Your task to perform on an android device: find which apps use the phone's location Image 0: 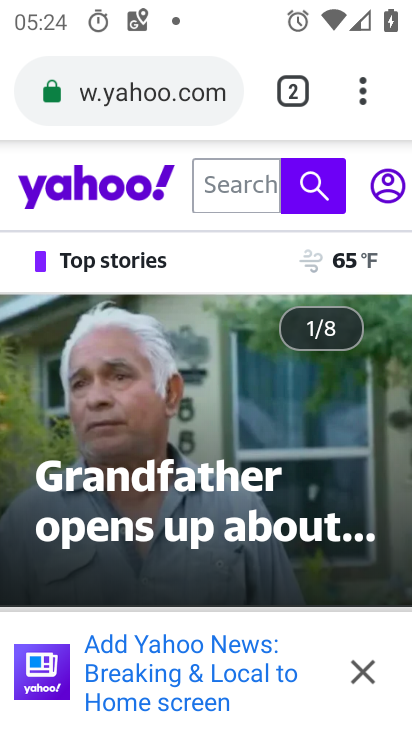
Step 0: press home button
Your task to perform on an android device: find which apps use the phone's location Image 1: 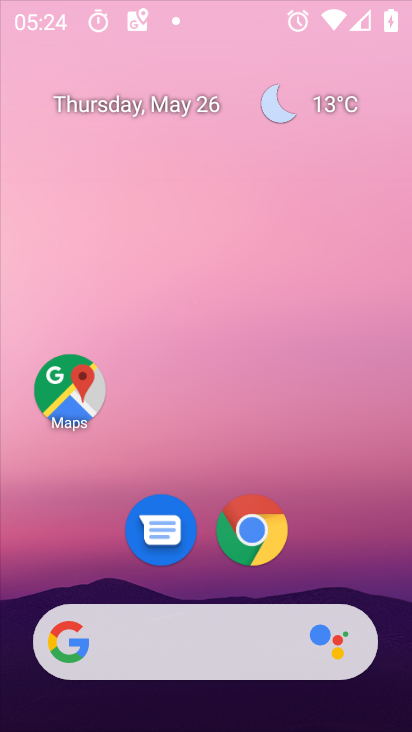
Step 1: drag from (329, 666) to (279, 0)
Your task to perform on an android device: find which apps use the phone's location Image 2: 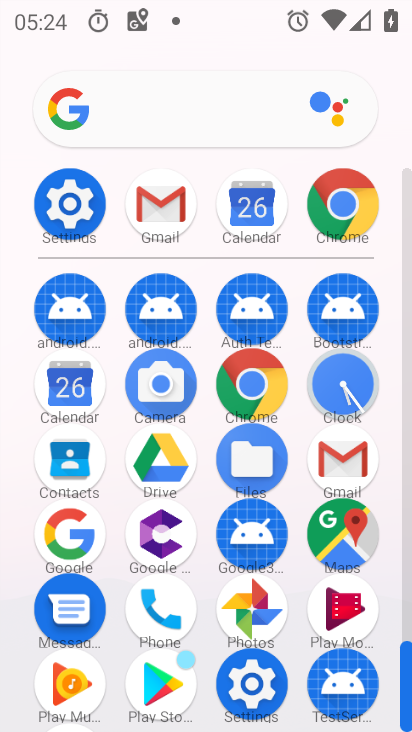
Step 2: click (72, 211)
Your task to perform on an android device: find which apps use the phone's location Image 3: 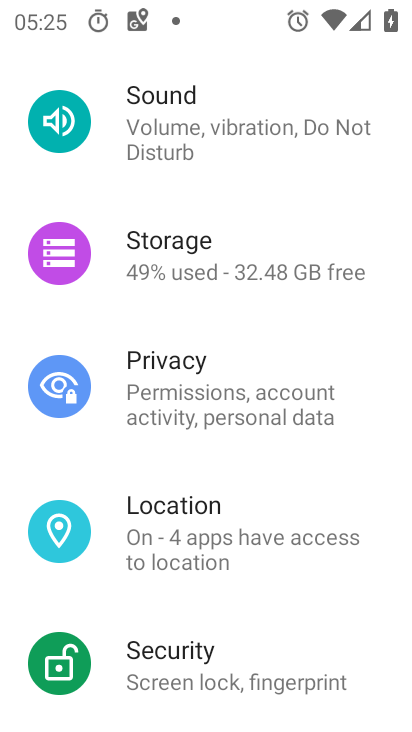
Step 3: click (233, 534)
Your task to perform on an android device: find which apps use the phone's location Image 4: 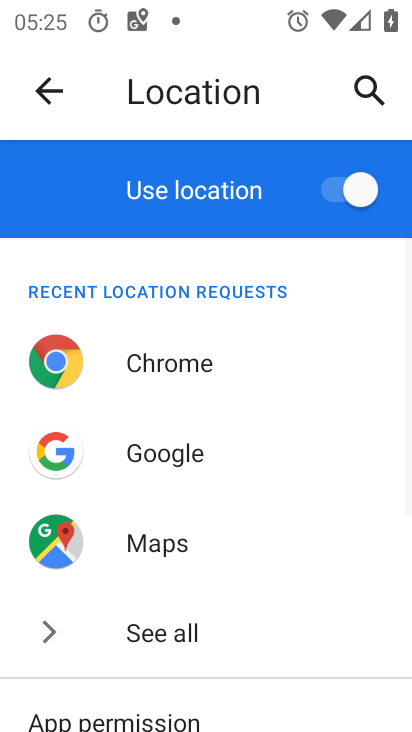
Step 4: drag from (213, 627) to (243, 160)
Your task to perform on an android device: find which apps use the phone's location Image 5: 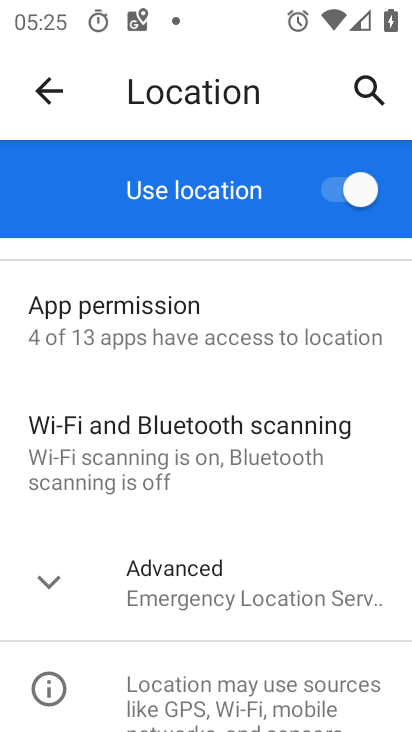
Step 5: click (183, 305)
Your task to perform on an android device: find which apps use the phone's location Image 6: 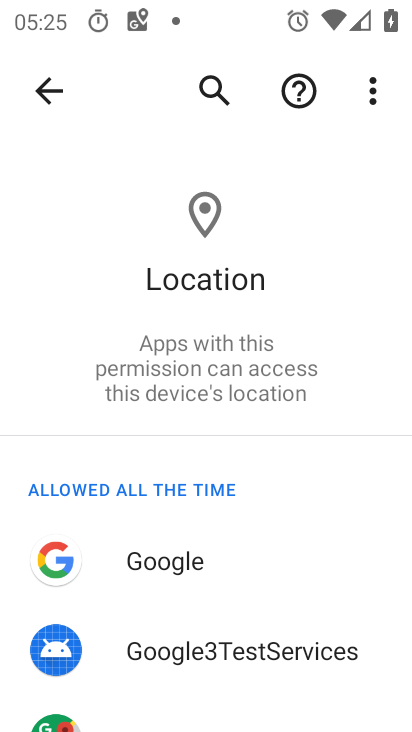
Step 6: task complete